Your task to perform on an android device: find photos in the google photos app Image 0: 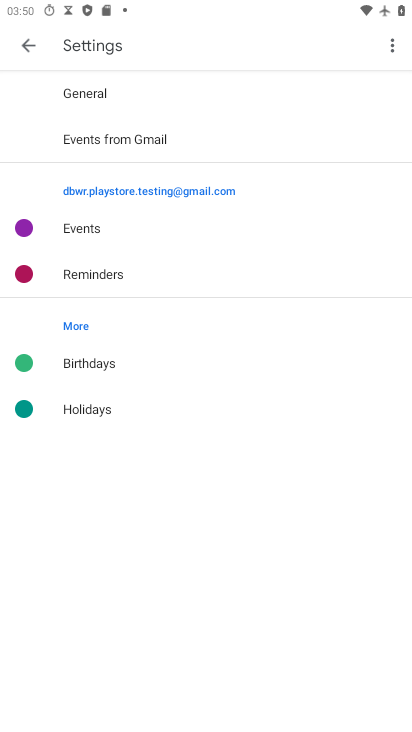
Step 0: press back button
Your task to perform on an android device: find photos in the google photos app Image 1: 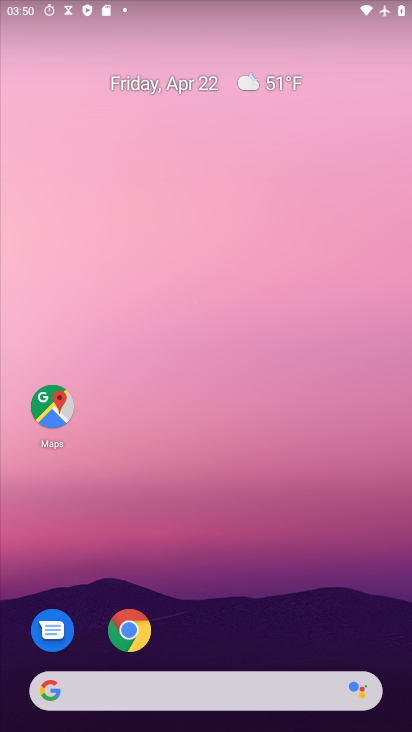
Step 1: drag from (346, 489) to (253, 4)
Your task to perform on an android device: find photos in the google photos app Image 2: 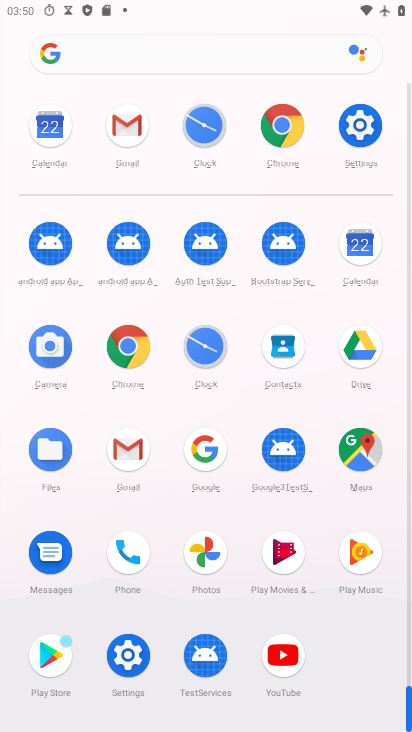
Step 2: drag from (4, 514) to (9, 347)
Your task to perform on an android device: find photos in the google photos app Image 3: 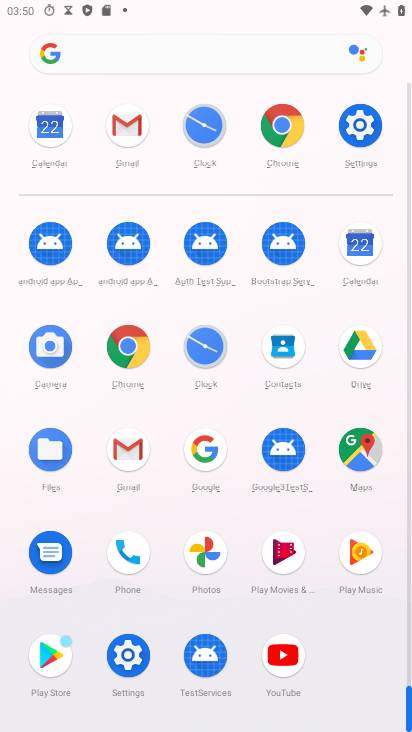
Step 3: click (203, 548)
Your task to perform on an android device: find photos in the google photos app Image 4: 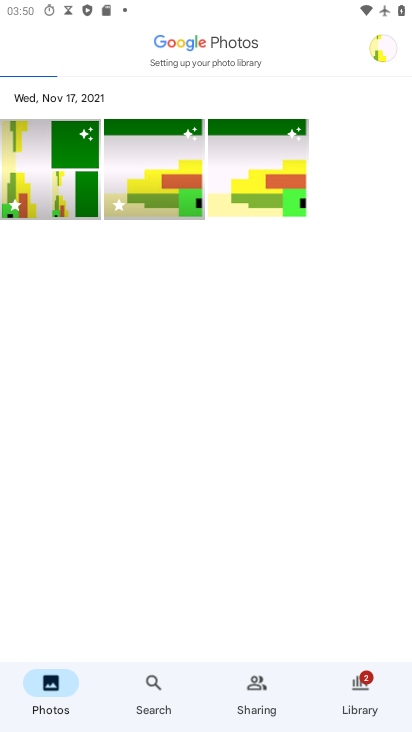
Step 4: task complete